Your task to perform on an android device: turn off sleep mode Image 0: 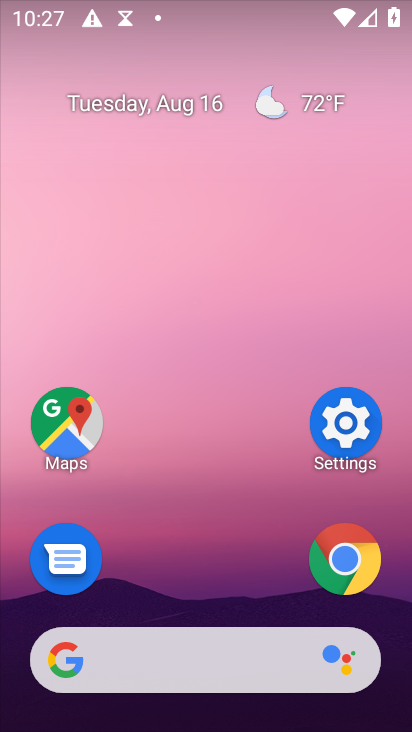
Step 0: click (355, 422)
Your task to perform on an android device: turn off sleep mode Image 1: 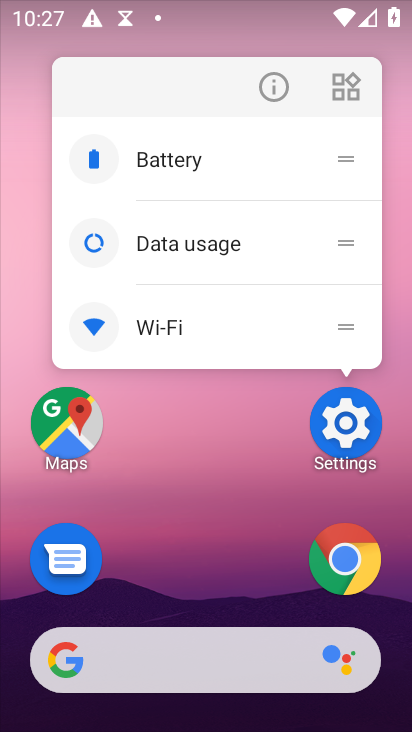
Step 1: click (346, 428)
Your task to perform on an android device: turn off sleep mode Image 2: 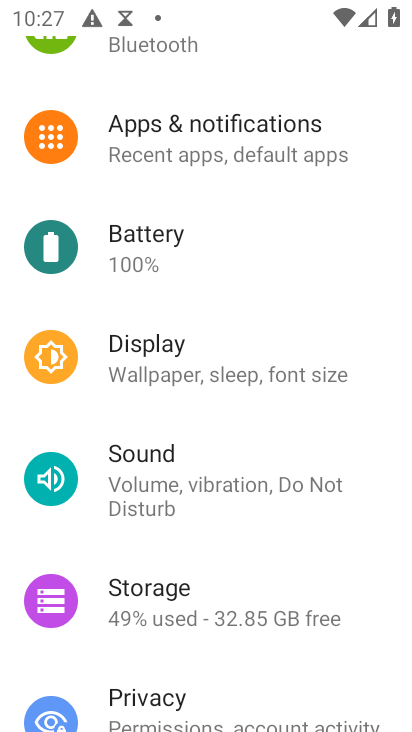
Step 2: click (178, 372)
Your task to perform on an android device: turn off sleep mode Image 3: 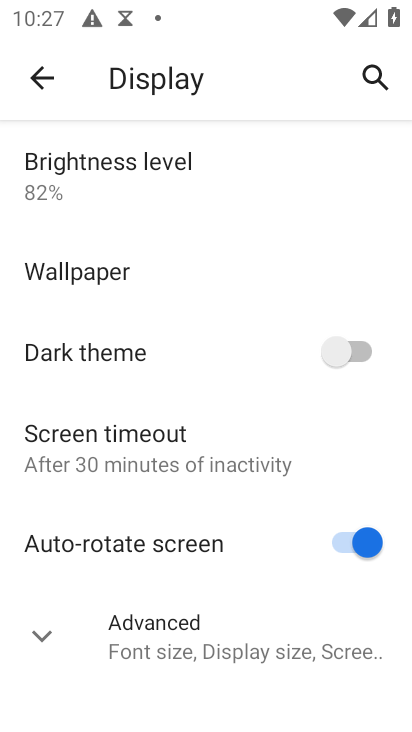
Step 3: click (37, 636)
Your task to perform on an android device: turn off sleep mode Image 4: 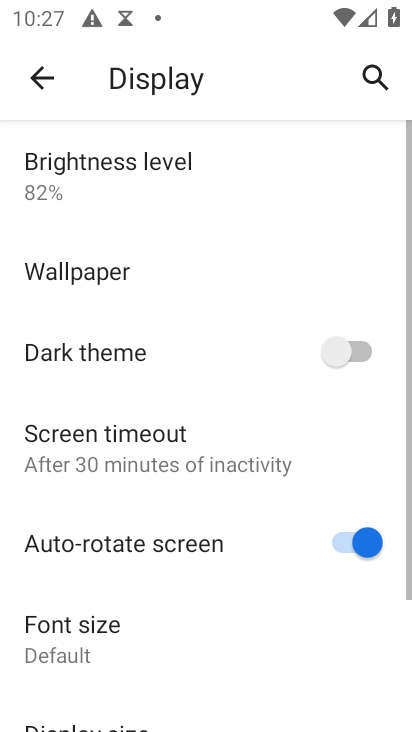
Step 4: task complete